Your task to perform on an android device: clear all cookies in the chrome app Image 0: 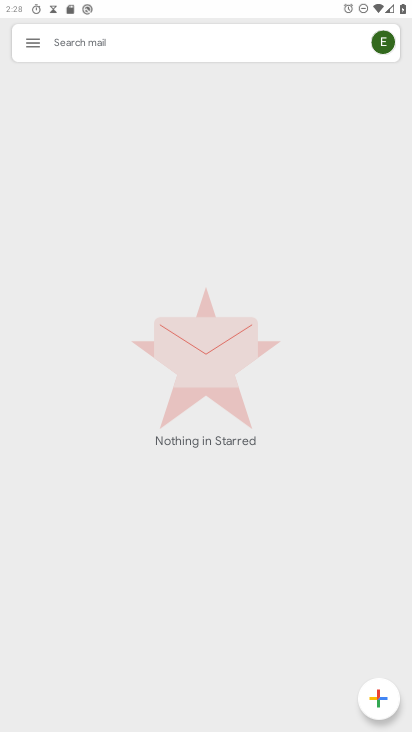
Step 0: press home button
Your task to perform on an android device: clear all cookies in the chrome app Image 1: 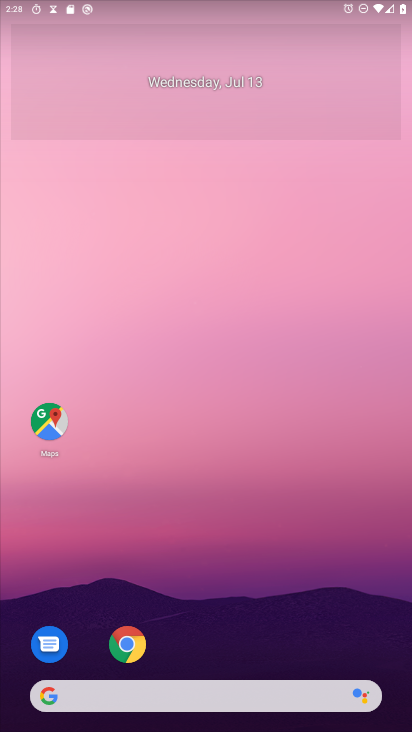
Step 1: click (129, 646)
Your task to perform on an android device: clear all cookies in the chrome app Image 2: 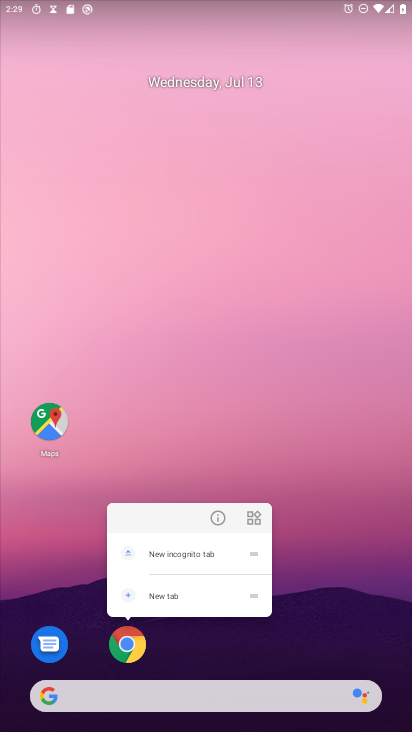
Step 2: click (127, 651)
Your task to perform on an android device: clear all cookies in the chrome app Image 3: 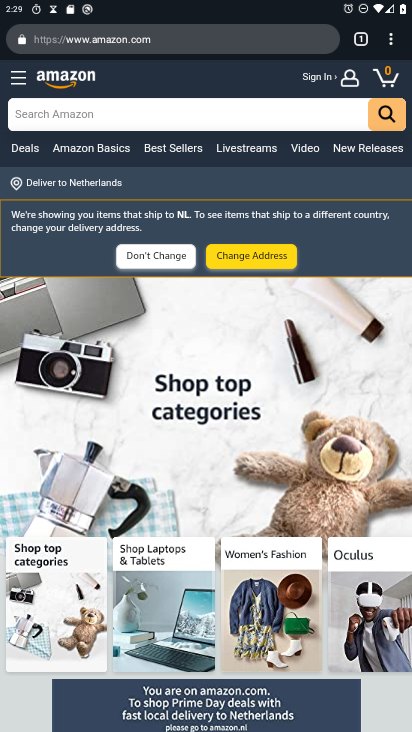
Step 3: drag from (386, 41) to (252, 468)
Your task to perform on an android device: clear all cookies in the chrome app Image 4: 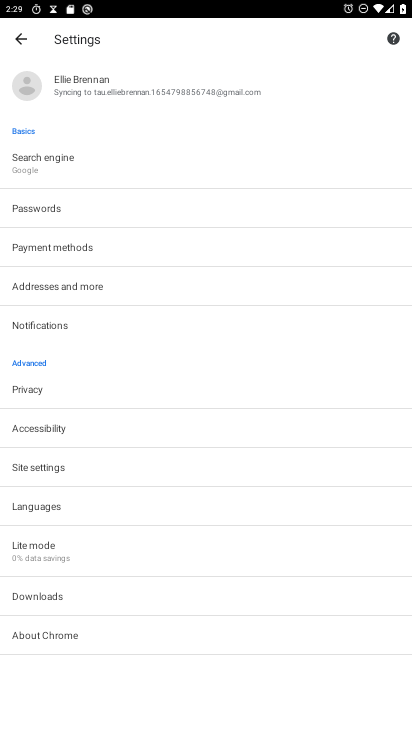
Step 4: click (25, 391)
Your task to perform on an android device: clear all cookies in the chrome app Image 5: 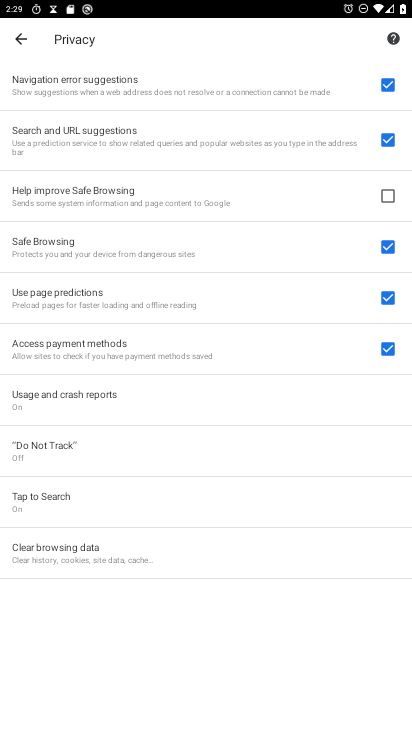
Step 5: click (76, 548)
Your task to perform on an android device: clear all cookies in the chrome app Image 6: 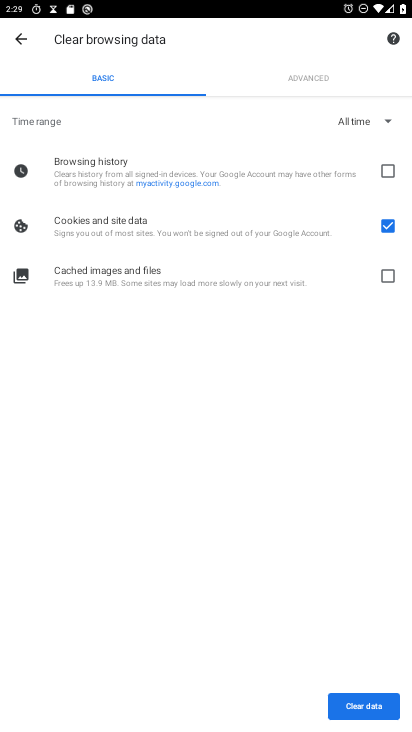
Step 6: click (345, 695)
Your task to perform on an android device: clear all cookies in the chrome app Image 7: 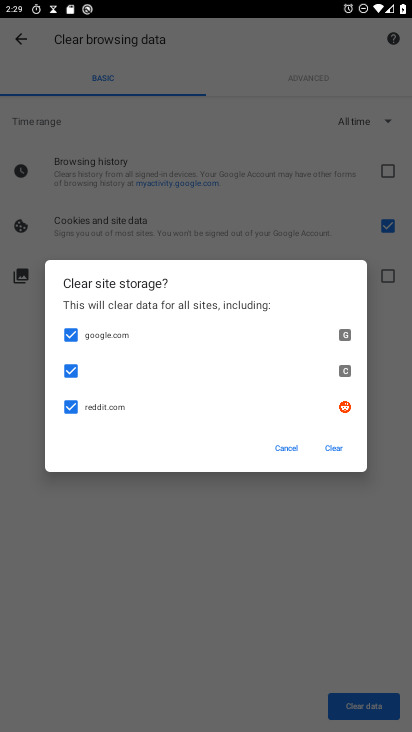
Step 7: click (338, 443)
Your task to perform on an android device: clear all cookies in the chrome app Image 8: 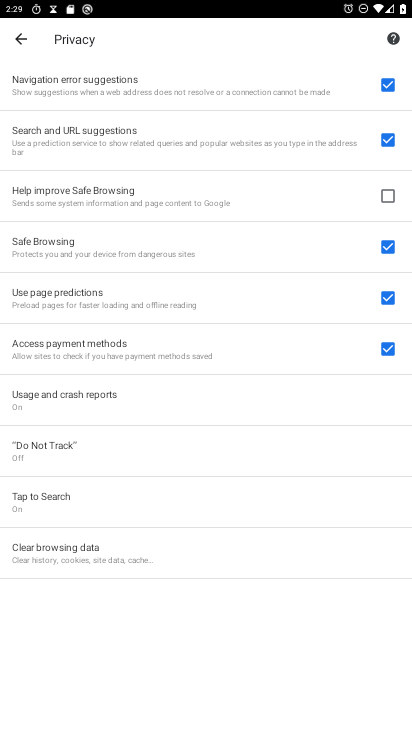
Step 8: task complete